Your task to perform on an android device: Add "logitech g pro" to the cart on ebay.com Image 0: 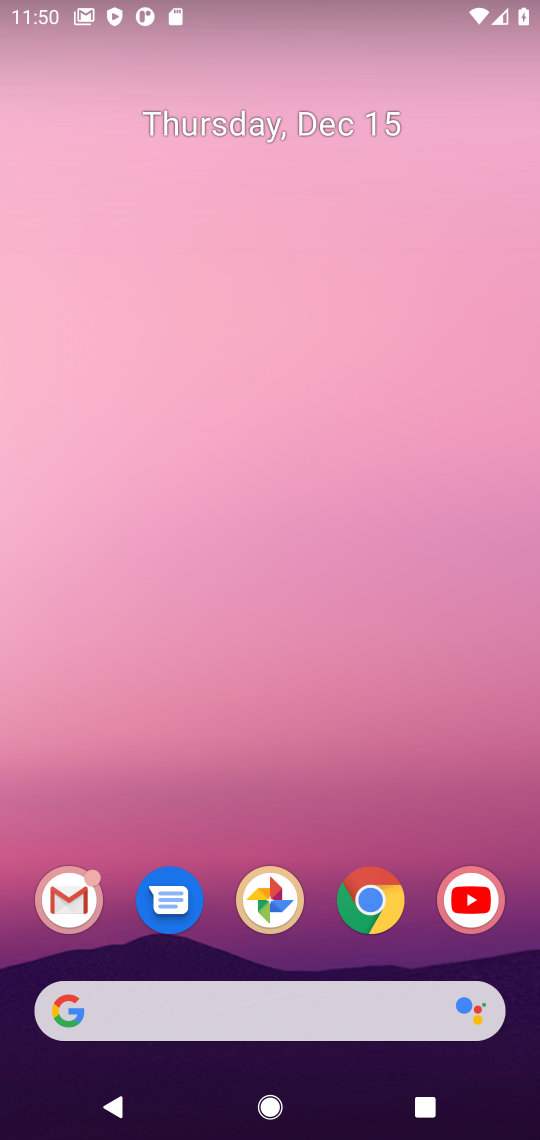
Step 0: click (365, 899)
Your task to perform on an android device: Add "logitech g pro" to the cart on ebay.com Image 1: 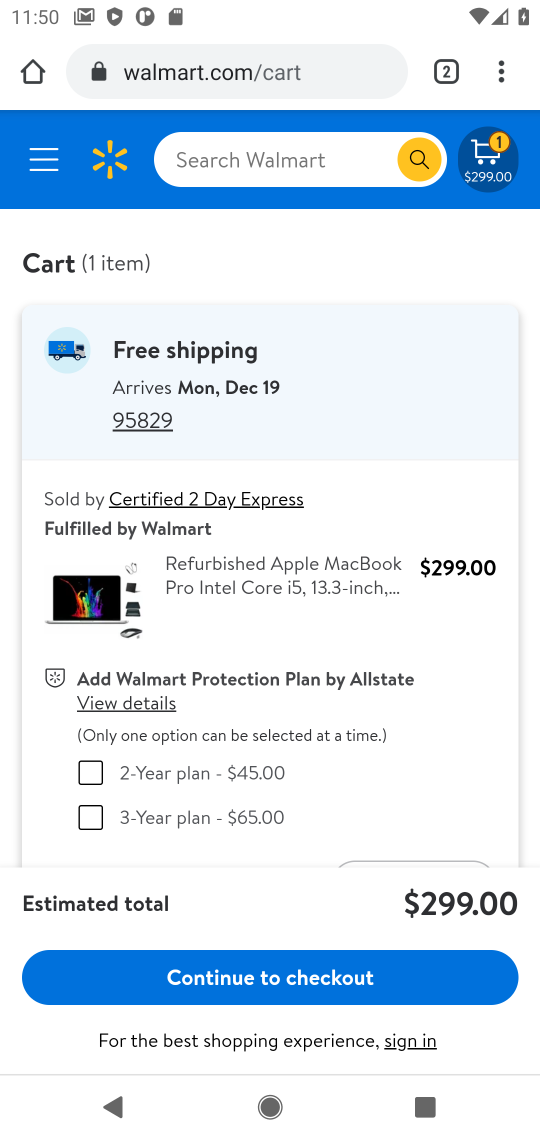
Step 1: click (275, 75)
Your task to perform on an android device: Add "logitech g pro" to the cart on ebay.com Image 2: 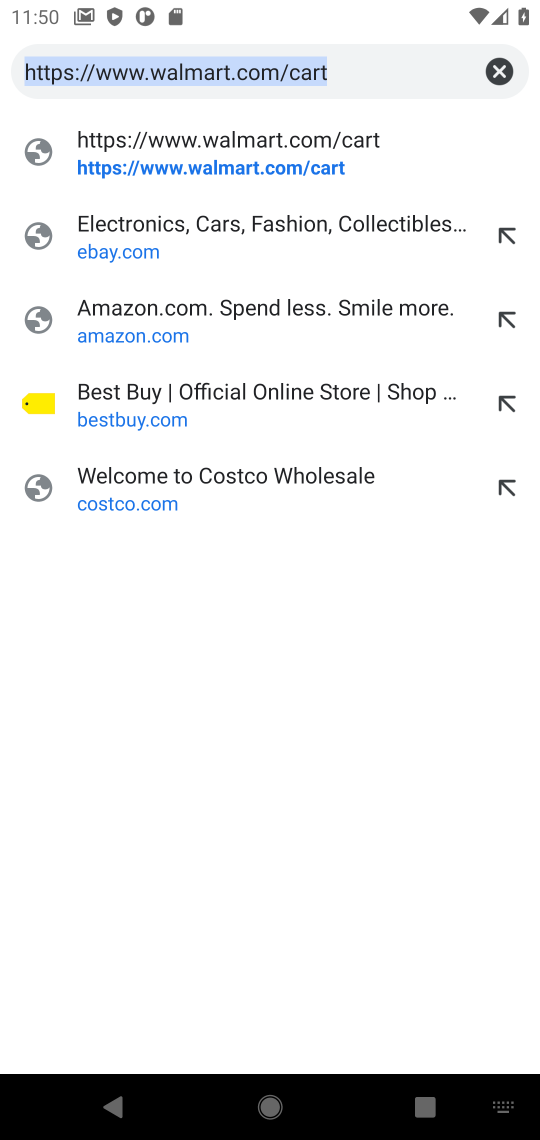
Step 2: click (204, 227)
Your task to perform on an android device: Add "logitech g pro" to the cart on ebay.com Image 3: 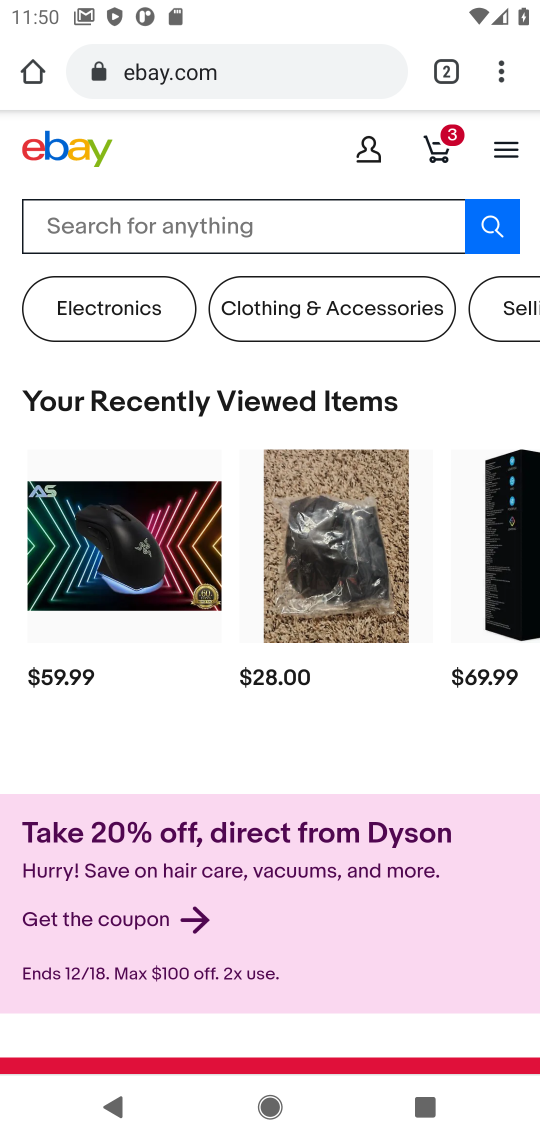
Step 3: click (390, 217)
Your task to perform on an android device: Add "logitech g pro" to the cart on ebay.com Image 4: 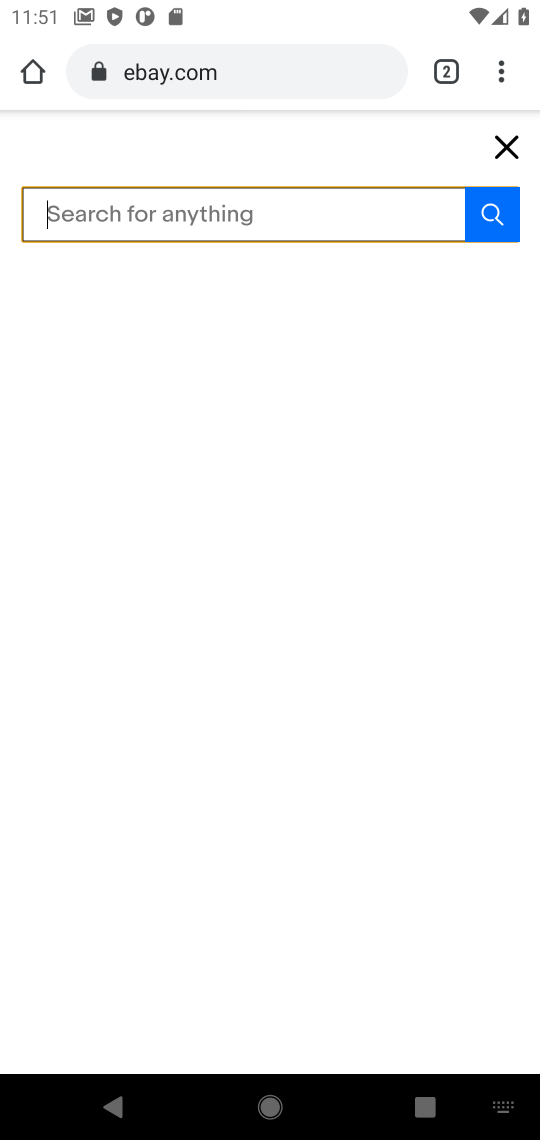
Step 4: press enter
Your task to perform on an android device: Add "logitech g pro" to the cart on ebay.com Image 5: 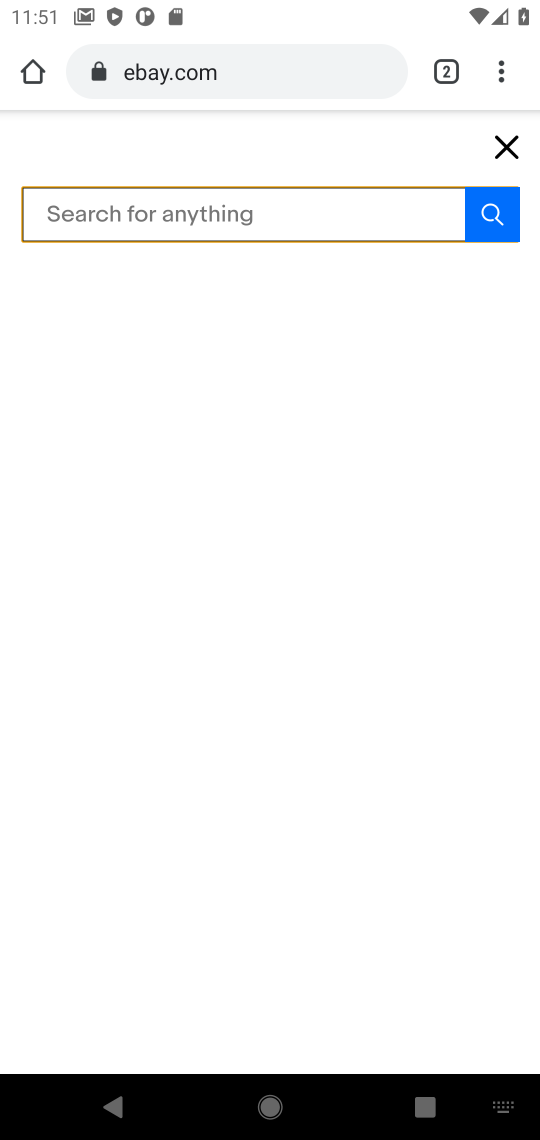
Step 5: type "logitech g pro"
Your task to perform on an android device: Add "logitech g pro" to the cart on ebay.com Image 6: 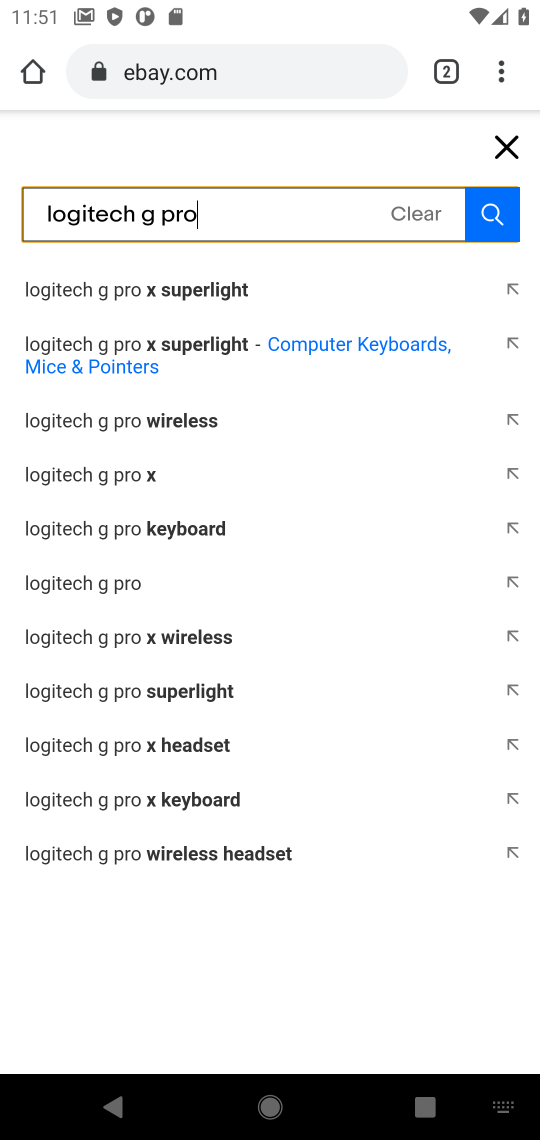
Step 6: click (123, 583)
Your task to perform on an android device: Add "logitech g pro" to the cart on ebay.com Image 7: 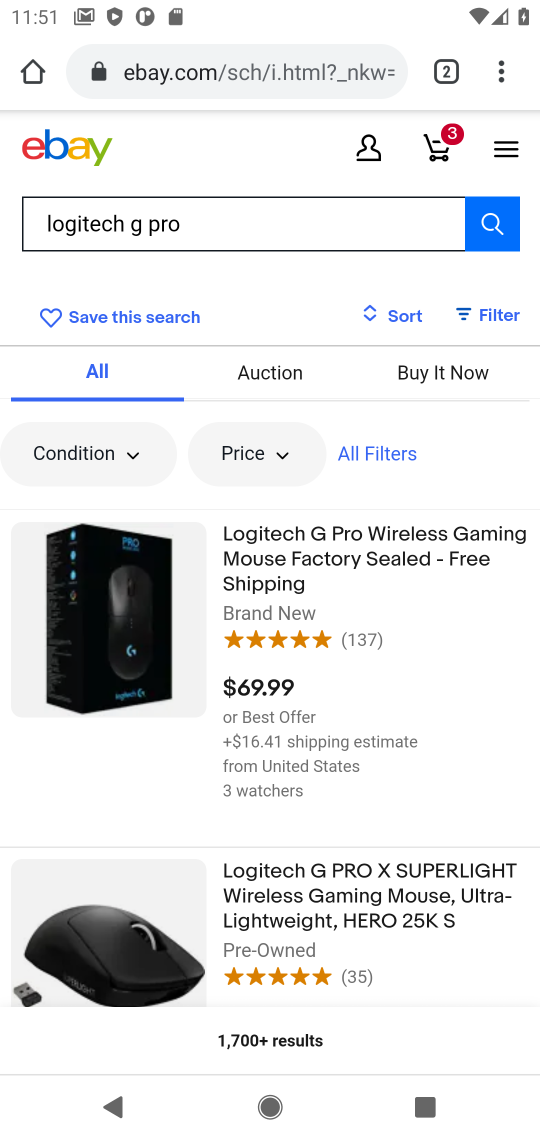
Step 7: click (85, 591)
Your task to perform on an android device: Add "logitech g pro" to the cart on ebay.com Image 8: 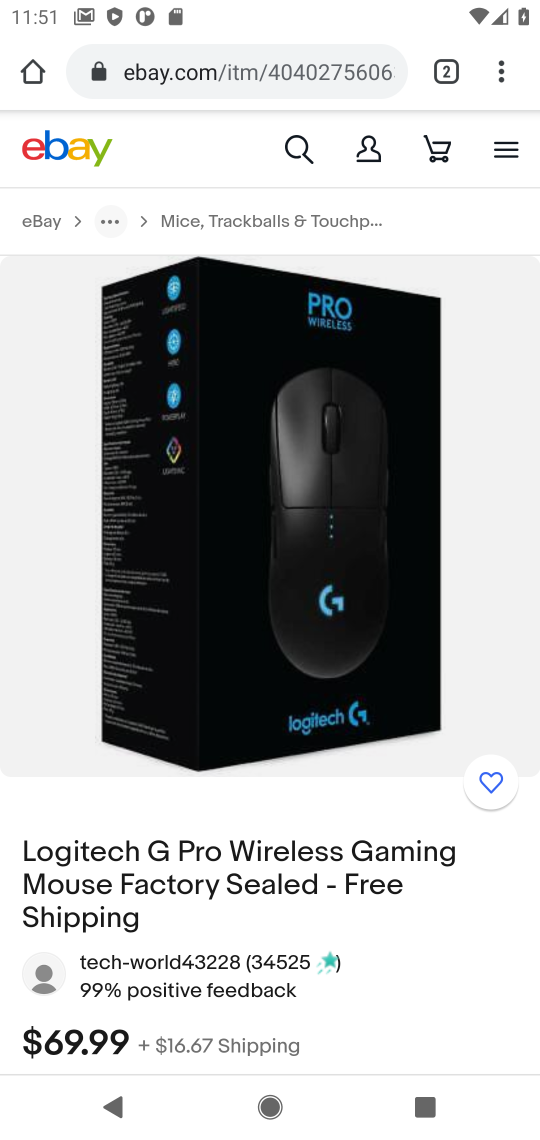
Step 8: drag from (371, 862) to (385, 477)
Your task to perform on an android device: Add "logitech g pro" to the cart on ebay.com Image 9: 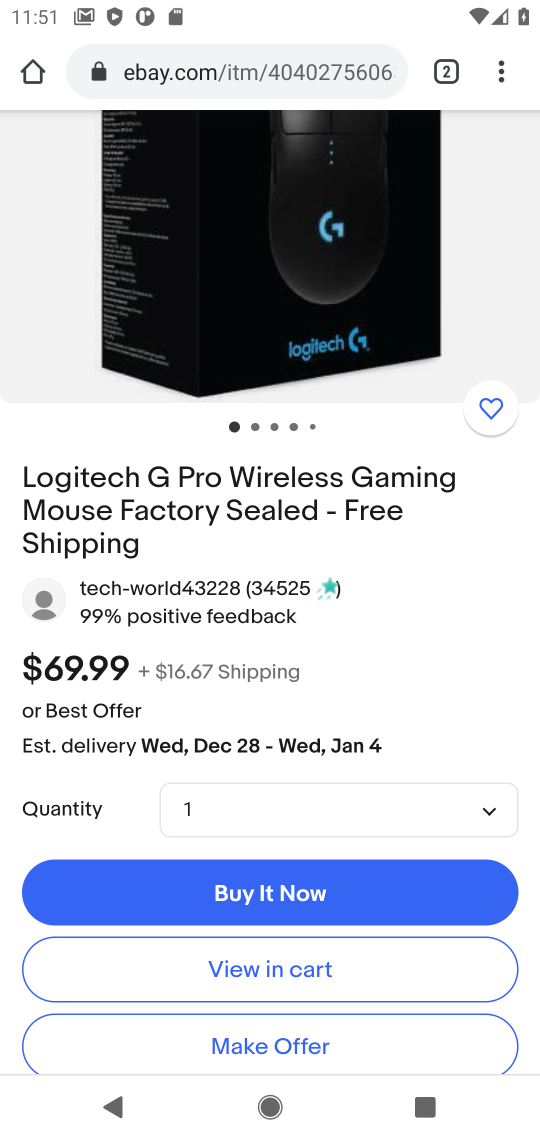
Step 9: click (266, 966)
Your task to perform on an android device: Add "logitech g pro" to the cart on ebay.com Image 10: 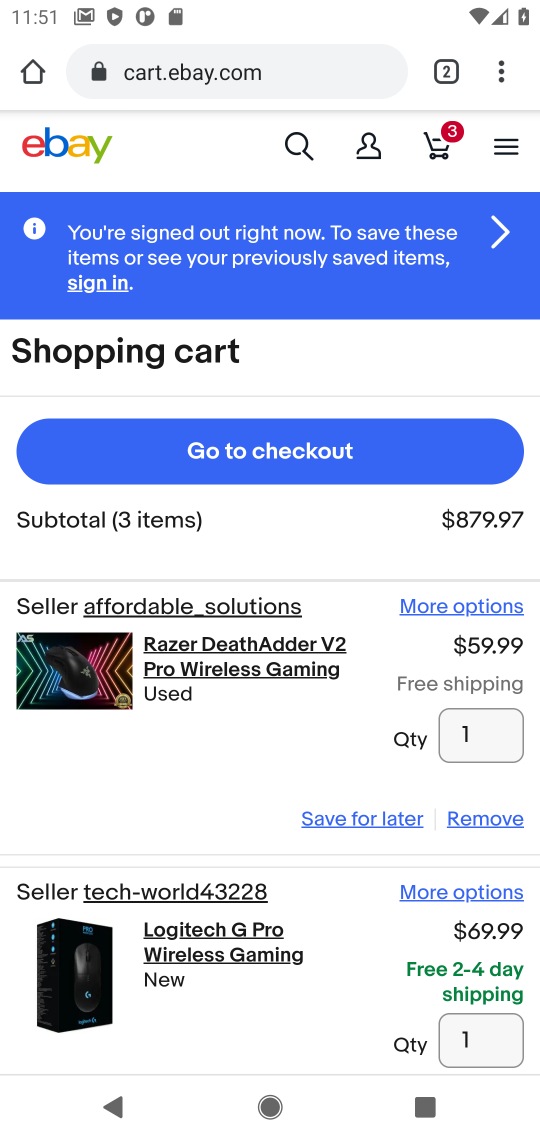
Step 10: task complete